Your task to perform on an android device: Go to notification settings Image 0: 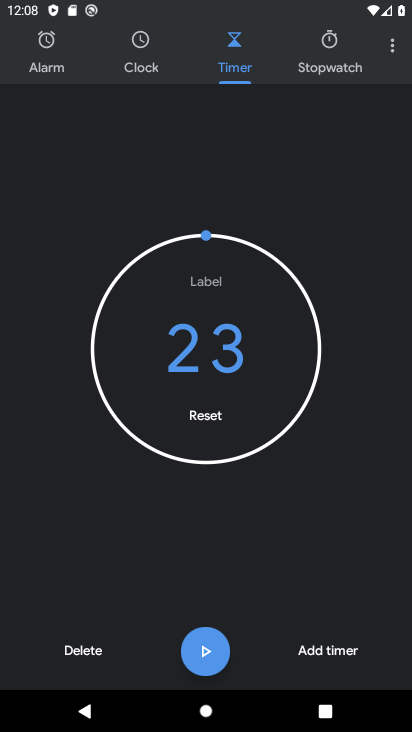
Step 0: click (408, 379)
Your task to perform on an android device: Go to notification settings Image 1: 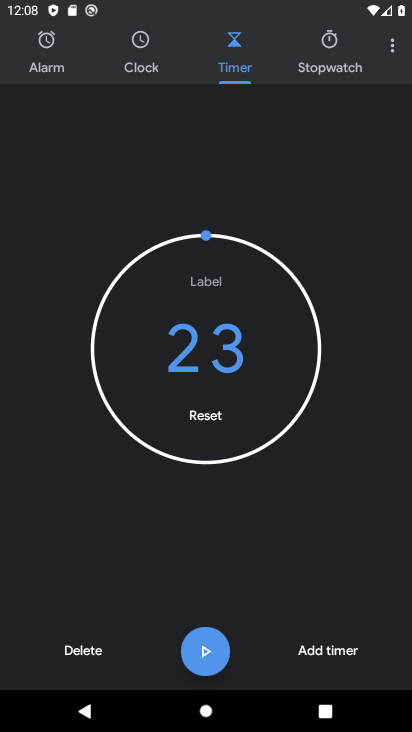
Step 1: press home button
Your task to perform on an android device: Go to notification settings Image 2: 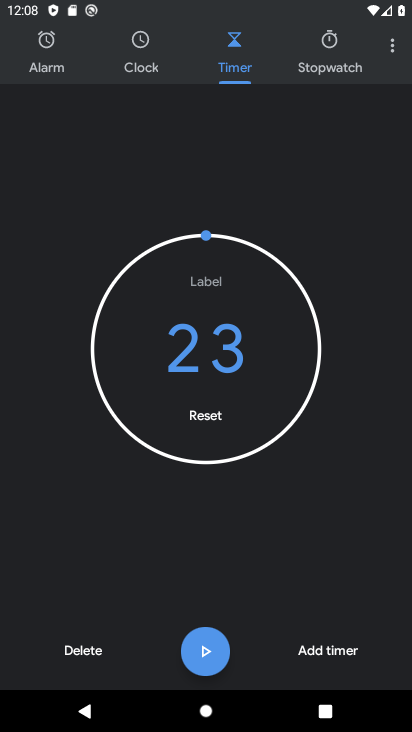
Step 2: press home button
Your task to perform on an android device: Go to notification settings Image 3: 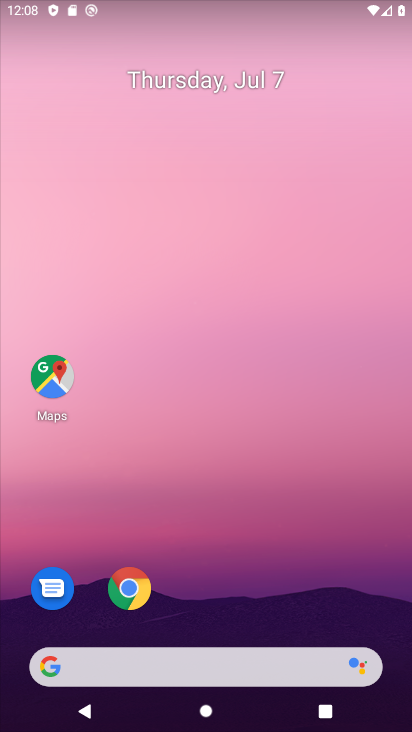
Step 3: drag from (200, 620) to (251, 96)
Your task to perform on an android device: Go to notification settings Image 4: 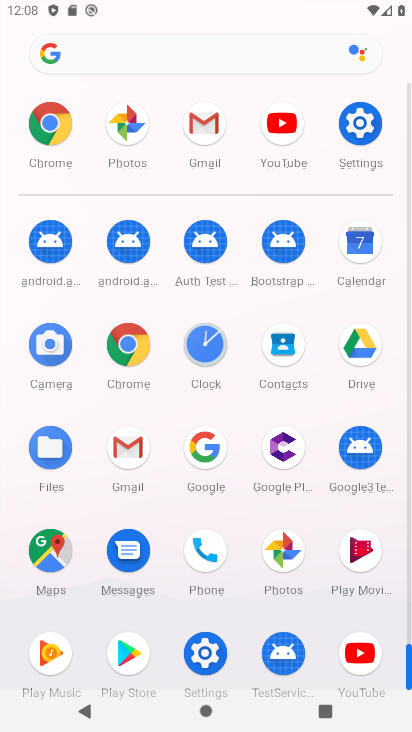
Step 4: click (370, 127)
Your task to perform on an android device: Go to notification settings Image 5: 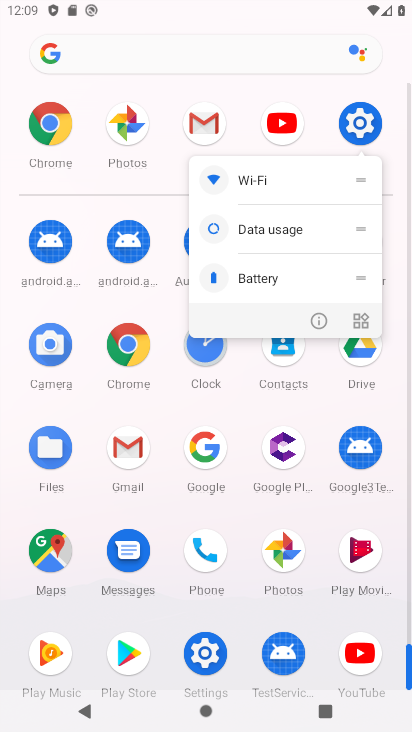
Step 5: click (312, 322)
Your task to perform on an android device: Go to notification settings Image 6: 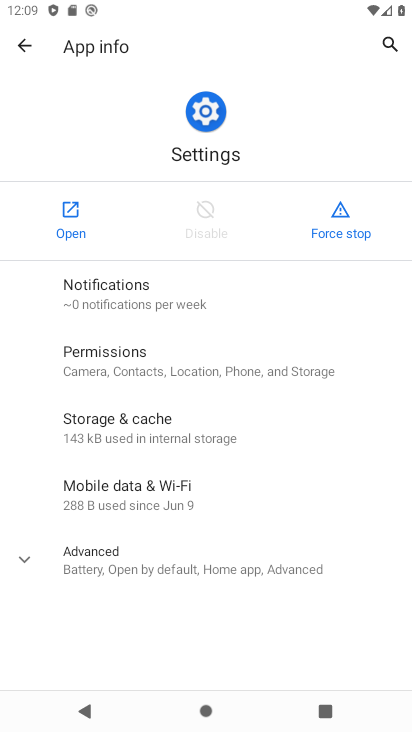
Step 6: click (57, 223)
Your task to perform on an android device: Go to notification settings Image 7: 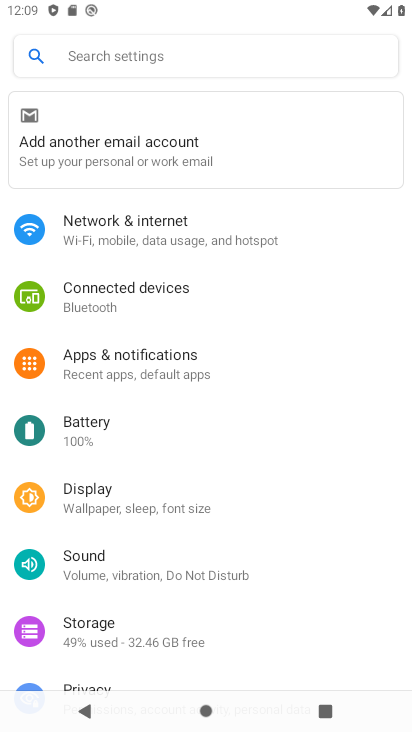
Step 7: click (167, 345)
Your task to perform on an android device: Go to notification settings Image 8: 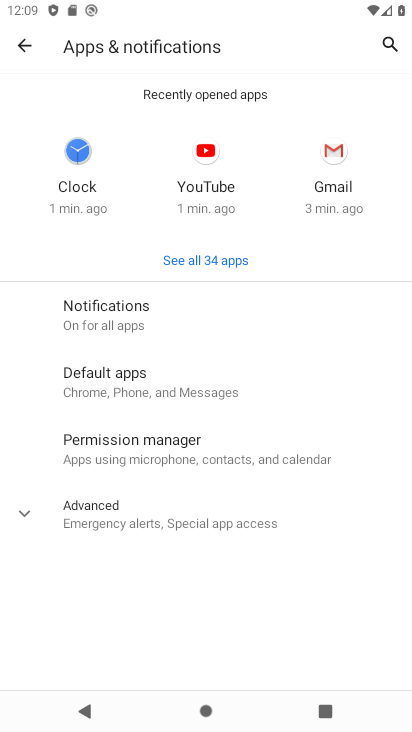
Step 8: click (84, 317)
Your task to perform on an android device: Go to notification settings Image 9: 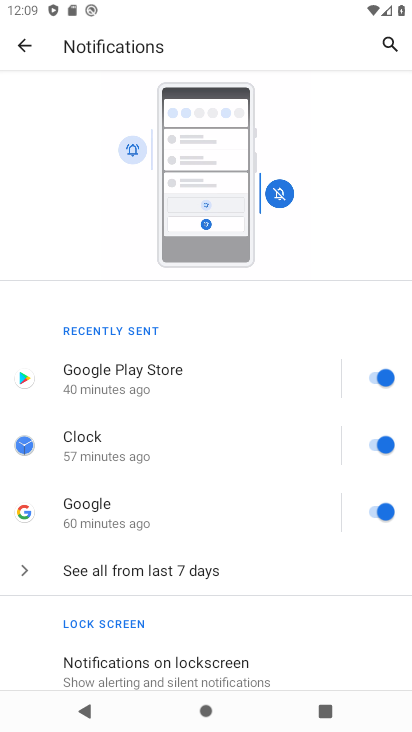
Step 9: task complete